Your task to perform on an android device: When is my next appointment? Image 0: 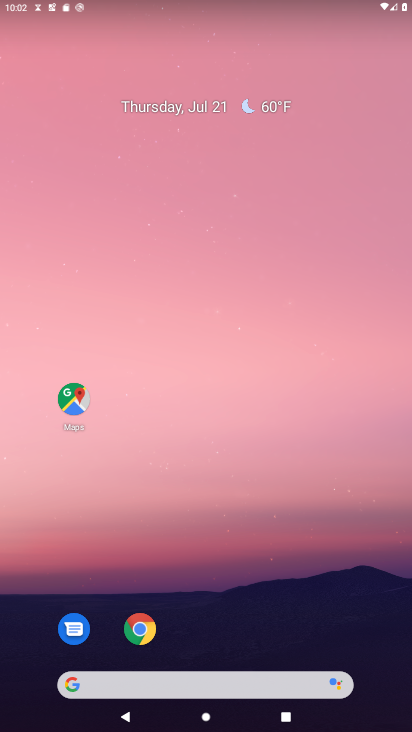
Step 0: click (223, 255)
Your task to perform on an android device: When is my next appointment? Image 1: 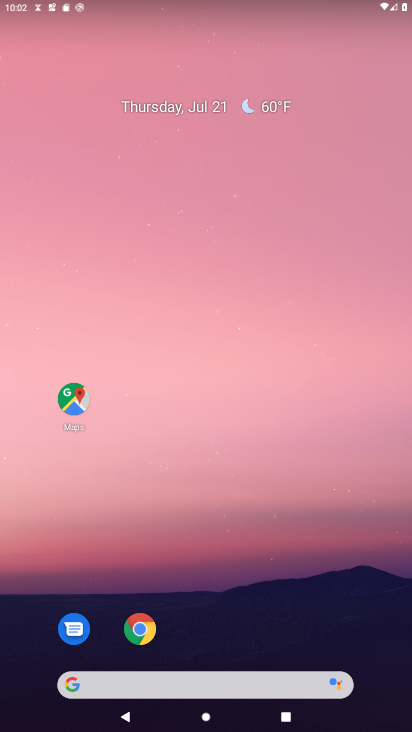
Step 1: drag from (206, 622) to (234, 81)
Your task to perform on an android device: When is my next appointment? Image 2: 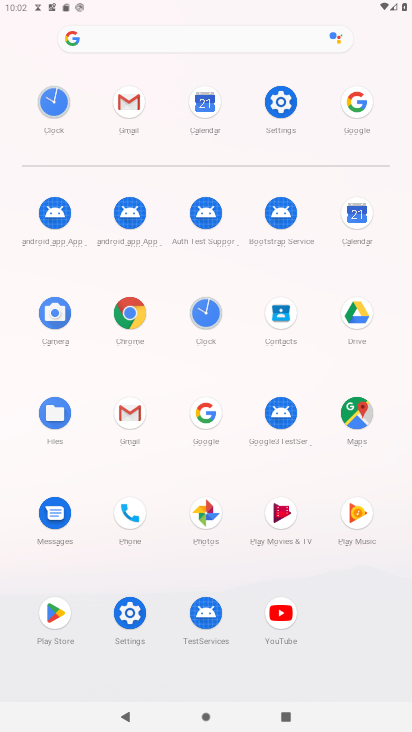
Step 2: click (351, 212)
Your task to perform on an android device: When is my next appointment? Image 3: 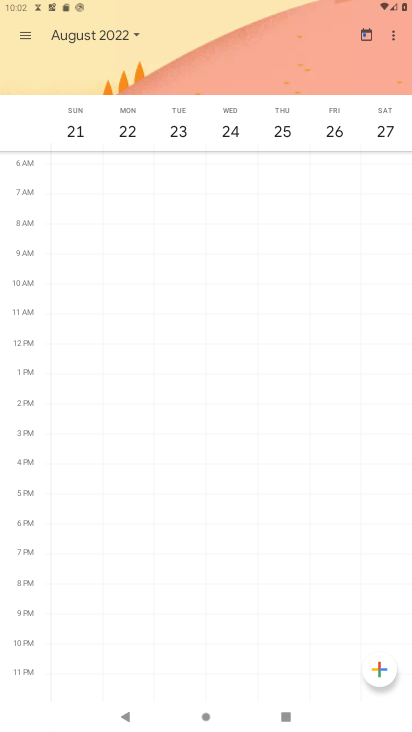
Step 3: drag from (57, 135) to (378, 148)
Your task to perform on an android device: When is my next appointment? Image 4: 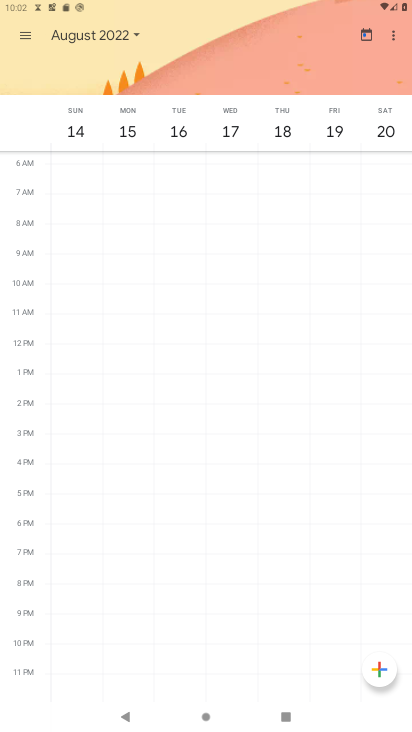
Step 4: click (14, 28)
Your task to perform on an android device: When is my next appointment? Image 5: 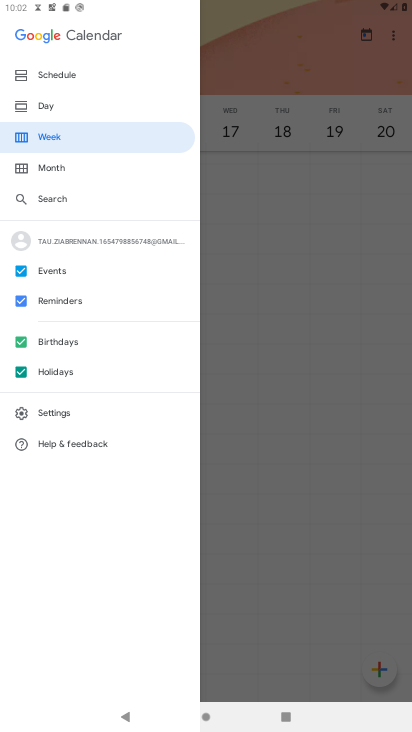
Step 5: click (43, 165)
Your task to perform on an android device: When is my next appointment? Image 6: 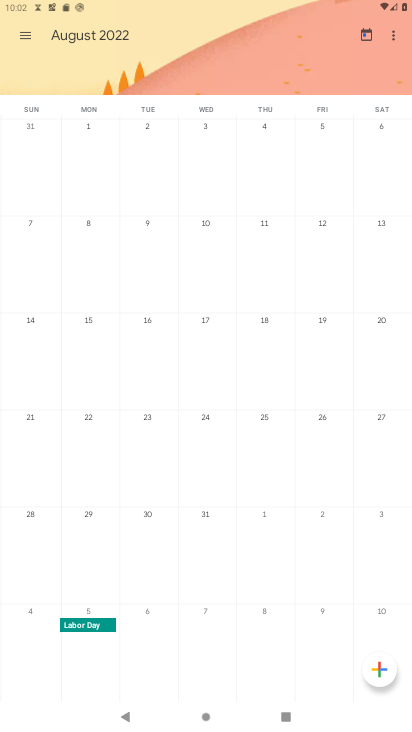
Step 6: drag from (97, 312) to (365, 313)
Your task to perform on an android device: When is my next appointment? Image 7: 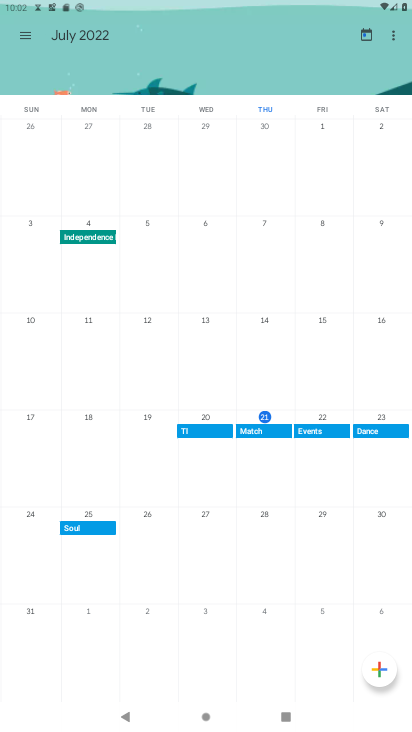
Step 7: click (384, 425)
Your task to perform on an android device: When is my next appointment? Image 8: 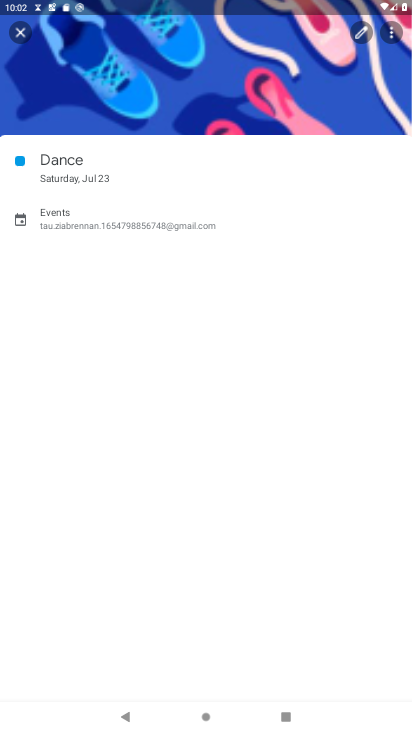
Step 8: task complete